Your task to perform on an android device: Go to accessibility settings Image 0: 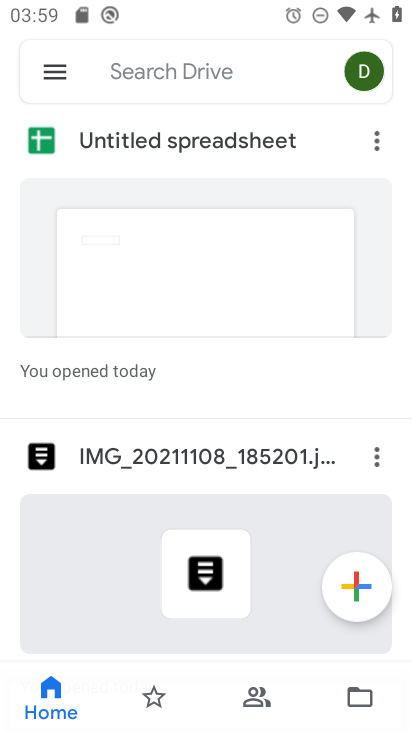
Step 0: press home button
Your task to perform on an android device: Go to accessibility settings Image 1: 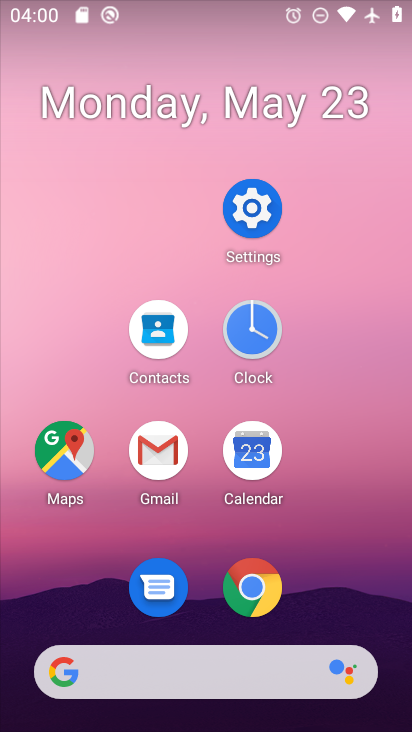
Step 1: click (259, 205)
Your task to perform on an android device: Go to accessibility settings Image 2: 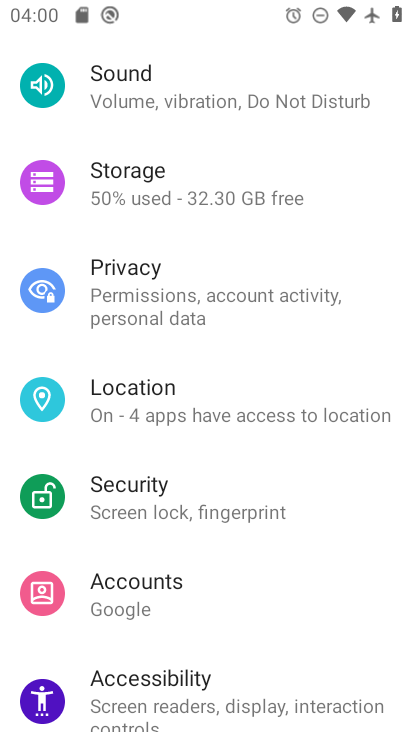
Step 2: click (145, 711)
Your task to perform on an android device: Go to accessibility settings Image 3: 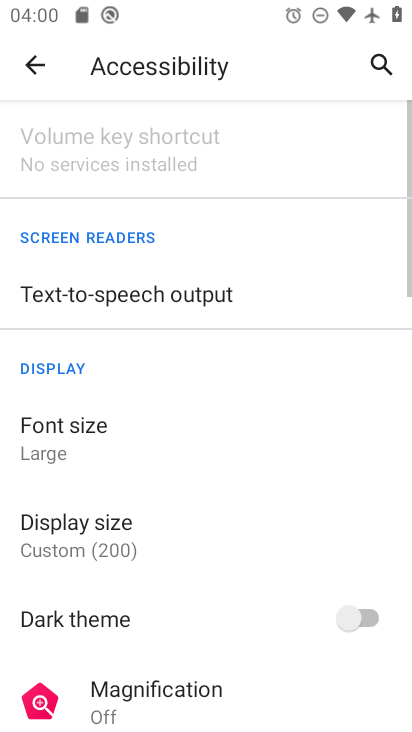
Step 3: task complete